Your task to perform on an android device: open a bookmark in the chrome app Image 0: 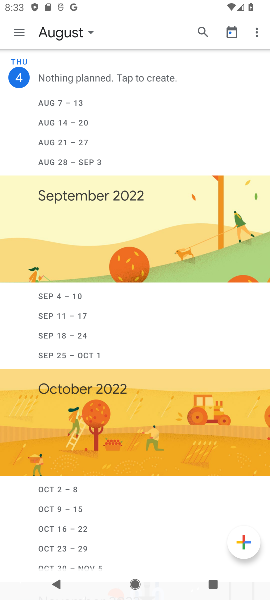
Step 0: press home button
Your task to perform on an android device: open a bookmark in the chrome app Image 1: 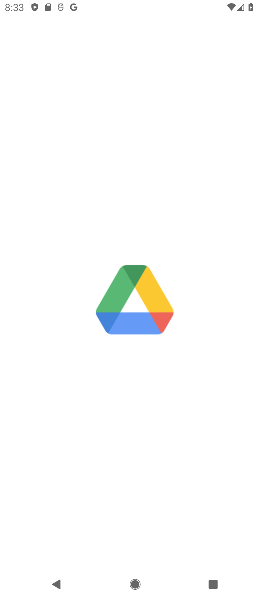
Step 1: press home button
Your task to perform on an android device: open a bookmark in the chrome app Image 2: 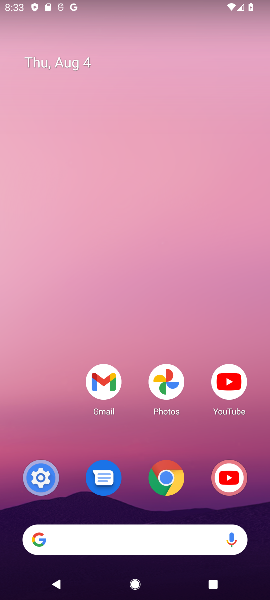
Step 2: click (163, 465)
Your task to perform on an android device: open a bookmark in the chrome app Image 3: 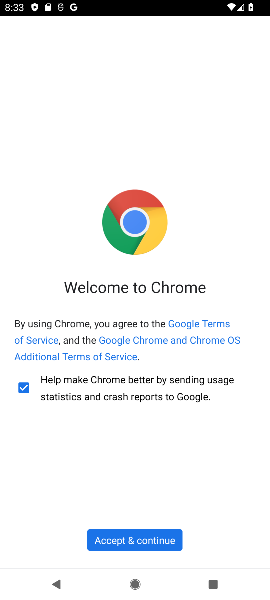
Step 3: click (135, 545)
Your task to perform on an android device: open a bookmark in the chrome app Image 4: 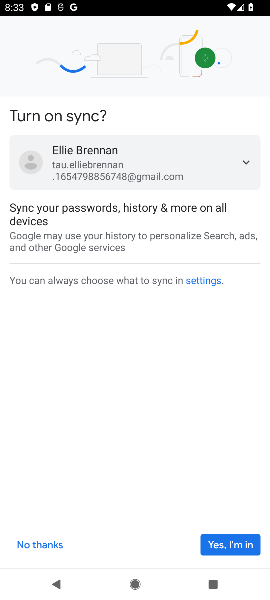
Step 4: click (227, 545)
Your task to perform on an android device: open a bookmark in the chrome app Image 5: 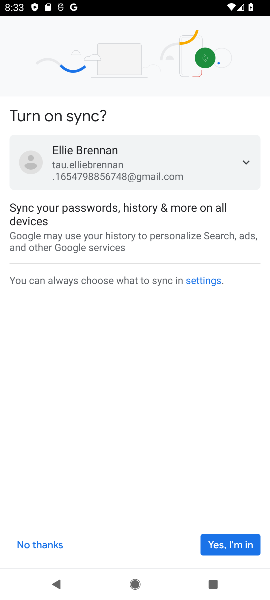
Step 5: click (227, 545)
Your task to perform on an android device: open a bookmark in the chrome app Image 6: 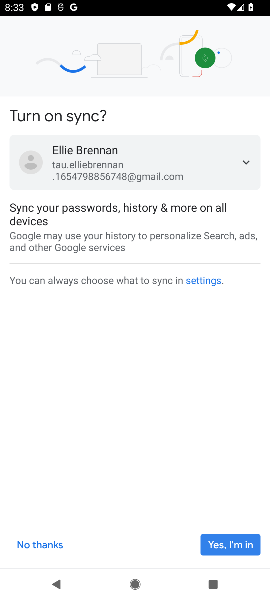
Step 6: click (227, 545)
Your task to perform on an android device: open a bookmark in the chrome app Image 7: 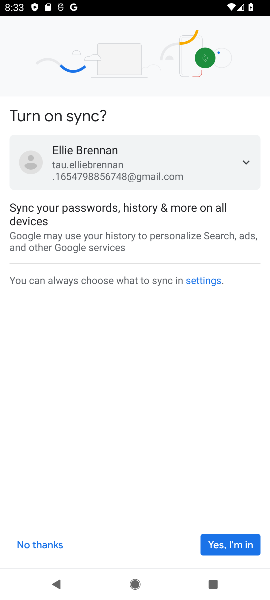
Step 7: click (227, 545)
Your task to perform on an android device: open a bookmark in the chrome app Image 8: 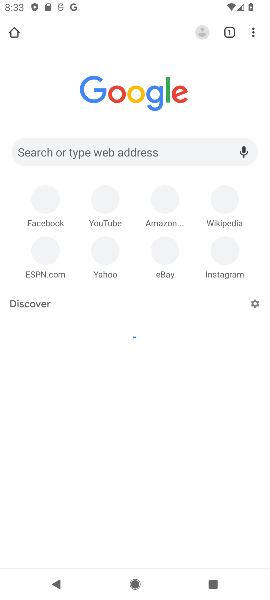
Step 8: drag from (251, 38) to (131, 283)
Your task to perform on an android device: open a bookmark in the chrome app Image 9: 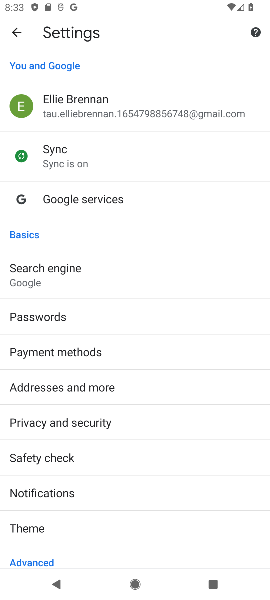
Step 9: click (2, 40)
Your task to perform on an android device: open a bookmark in the chrome app Image 10: 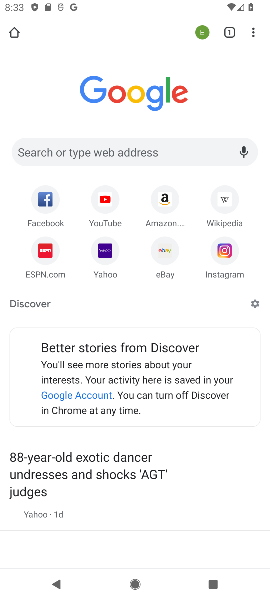
Step 10: task complete